Your task to perform on an android device: Open Chrome and go to the settings page Image 0: 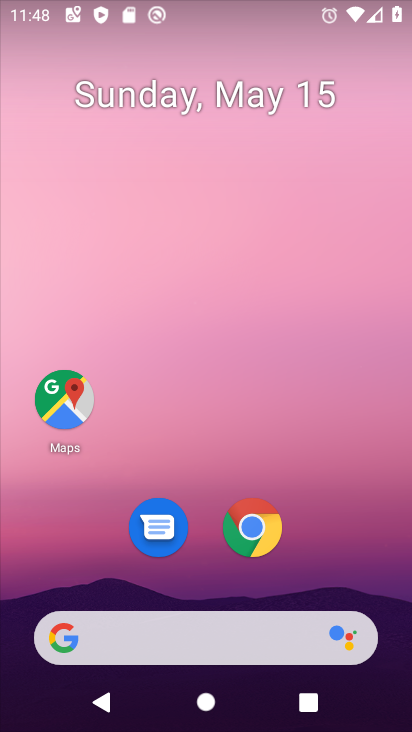
Step 0: click (233, 529)
Your task to perform on an android device: Open Chrome and go to the settings page Image 1: 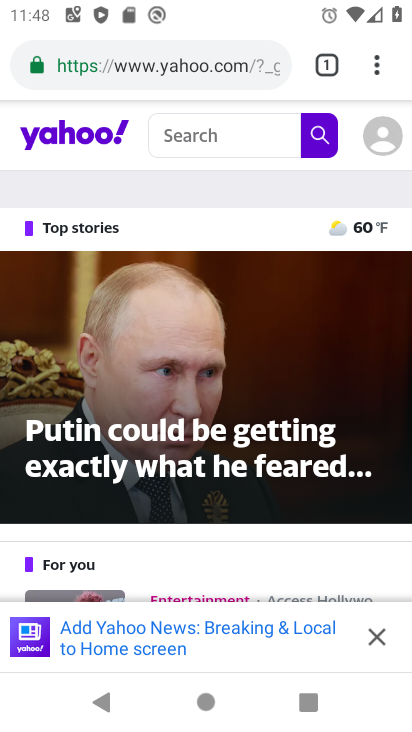
Step 1: click (374, 72)
Your task to perform on an android device: Open Chrome and go to the settings page Image 2: 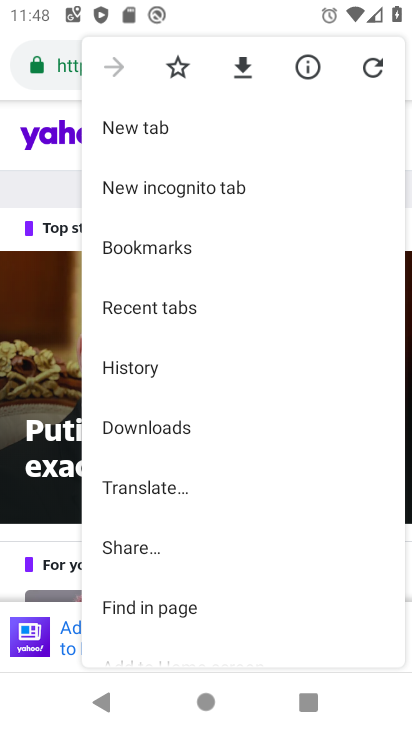
Step 2: drag from (208, 566) to (216, 423)
Your task to perform on an android device: Open Chrome and go to the settings page Image 3: 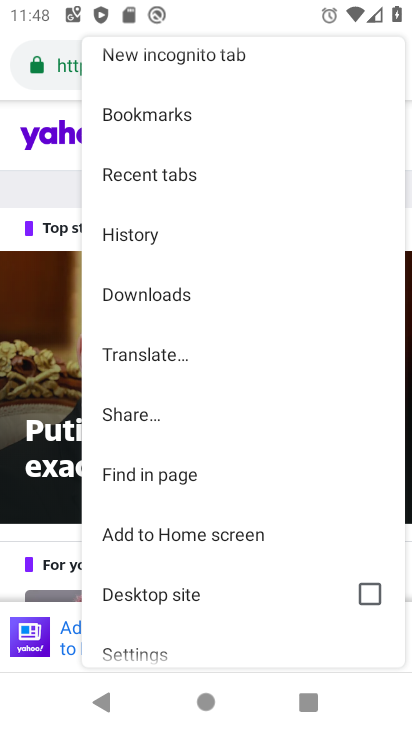
Step 3: click (192, 652)
Your task to perform on an android device: Open Chrome and go to the settings page Image 4: 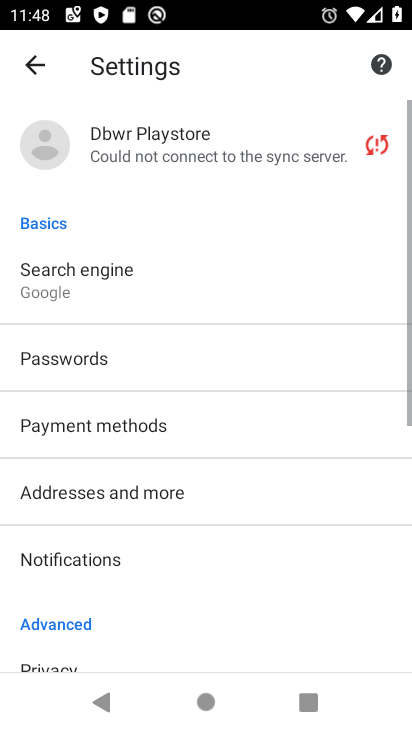
Step 4: task complete